Your task to perform on an android device: add a contact in the contacts app Image 0: 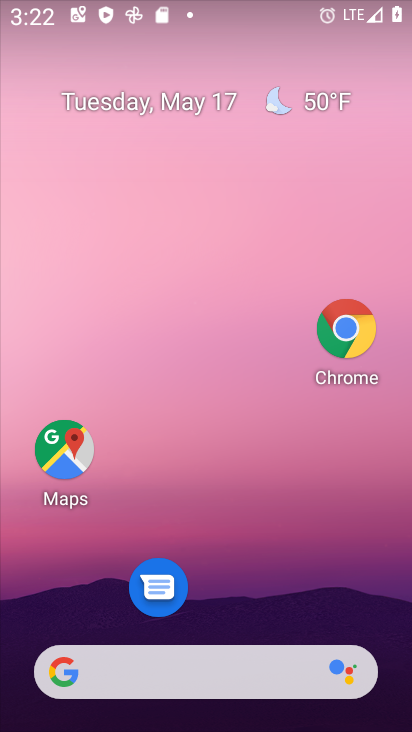
Step 0: drag from (263, 611) to (257, 0)
Your task to perform on an android device: add a contact in the contacts app Image 1: 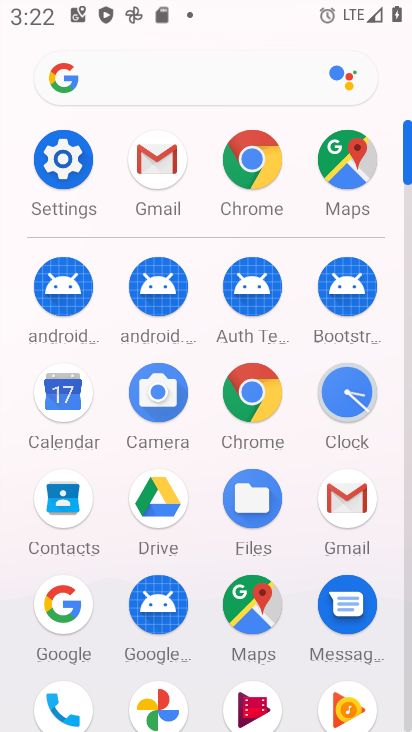
Step 1: click (85, 519)
Your task to perform on an android device: add a contact in the contacts app Image 2: 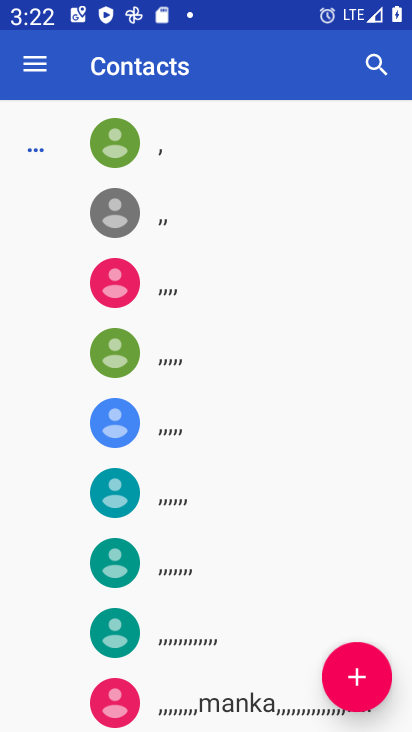
Step 2: click (361, 651)
Your task to perform on an android device: add a contact in the contacts app Image 3: 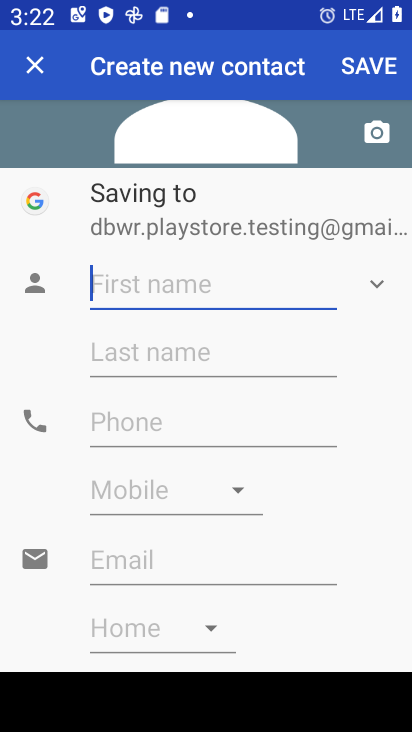
Step 3: type "sdcDS"
Your task to perform on an android device: add a contact in the contacts app Image 4: 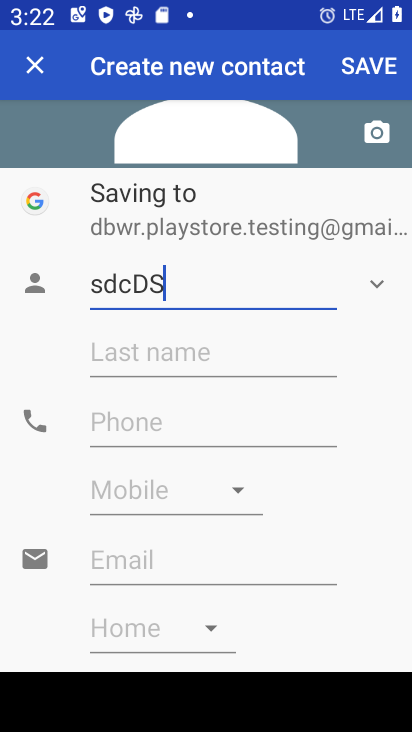
Step 4: click (193, 356)
Your task to perform on an android device: add a contact in the contacts app Image 5: 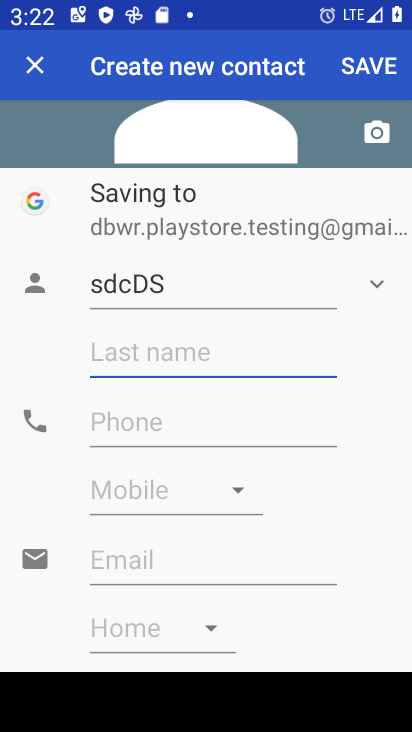
Step 5: type "sdsd"
Your task to perform on an android device: add a contact in the contacts app Image 6: 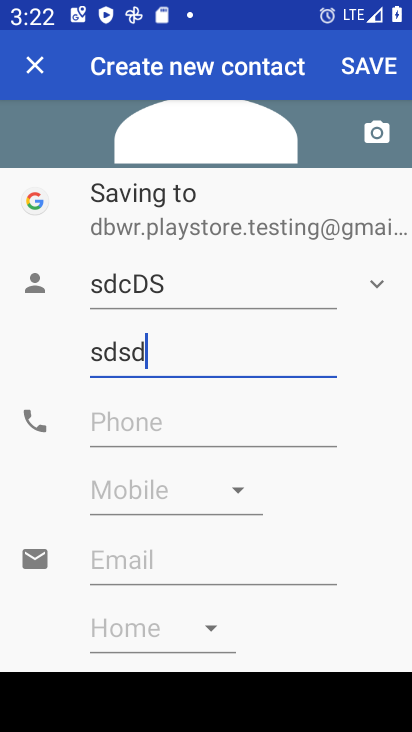
Step 6: click (215, 421)
Your task to perform on an android device: add a contact in the contacts app Image 7: 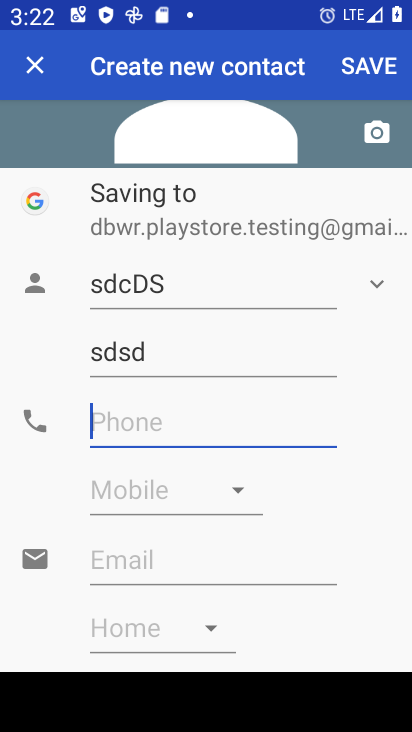
Step 7: type "453534534"
Your task to perform on an android device: add a contact in the contacts app Image 8: 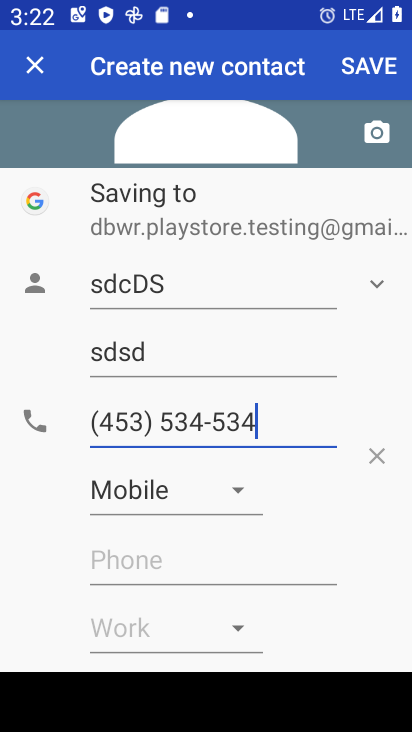
Step 8: click (382, 65)
Your task to perform on an android device: add a contact in the contacts app Image 9: 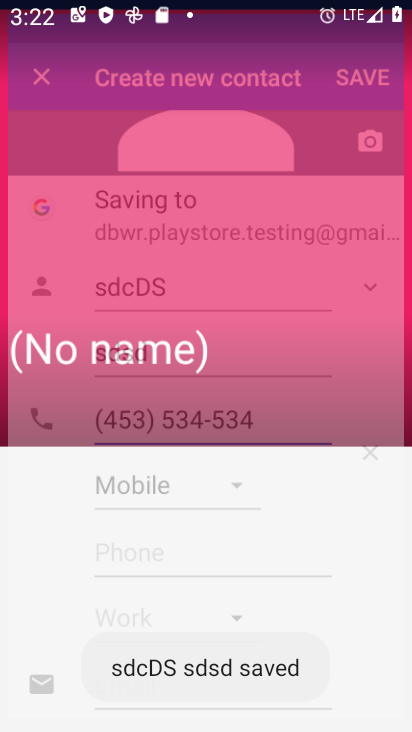
Step 9: task complete